Your task to perform on an android device: Search for Mexican restaurants on Maps Image 0: 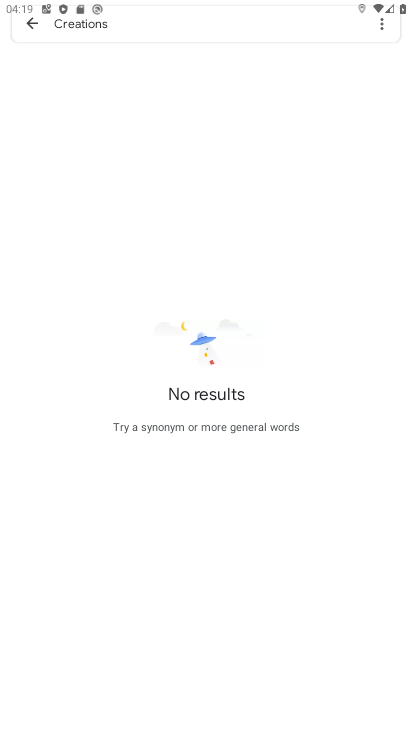
Step 0: press home button
Your task to perform on an android device: Search for Mexican restaurants on Maps Image 1: 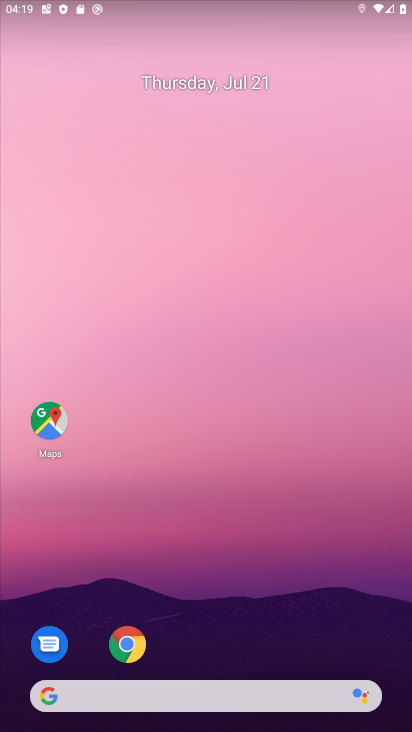
Step 1: click (49, 421)
Your task to perform on an android device: Search for Mexican restaurants on Maps Image 2: 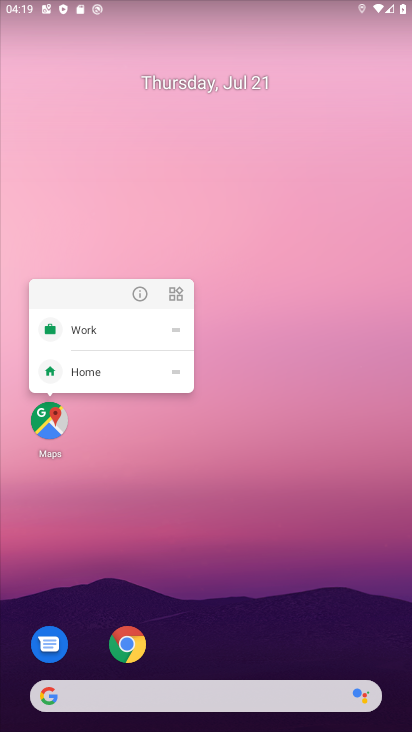
Step 2: click (49, 421)
Your task to perform on an android device: Search for Mexican restaurants on Maps Image 3: 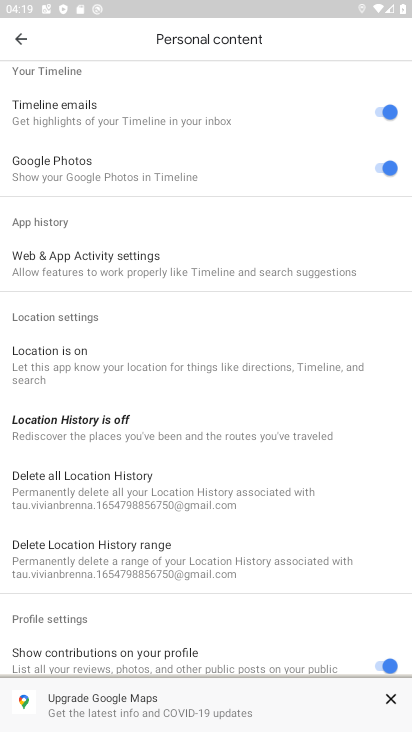
Step 3: click (20, 35)
Your task to perform on an android device: Search for Mexican restaurants on Maps Image 4: 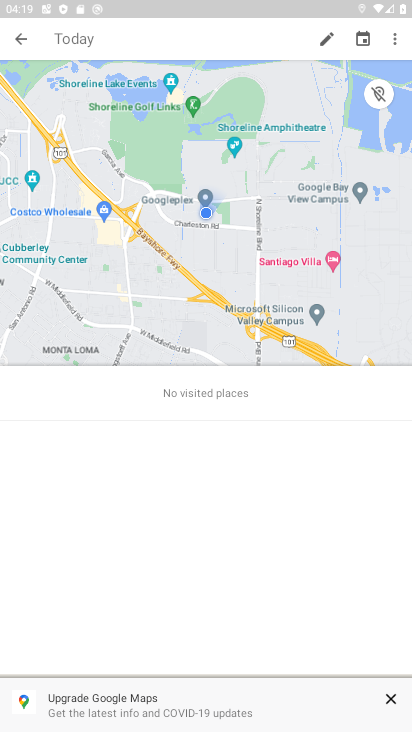
Step 4: click (21, 41)
Your task to perform on an android device: Search for Mexican restaurants on Maps Image 5: 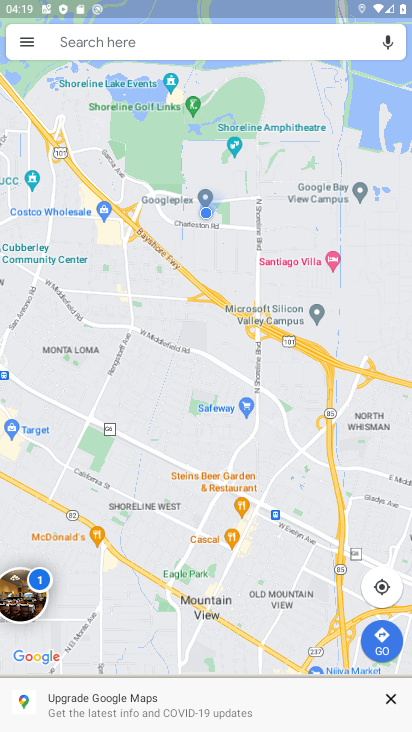
Step 5: click (87, 42)
Your task to perform on an android device: Search for Mexican restaurants on Maps Image 6: 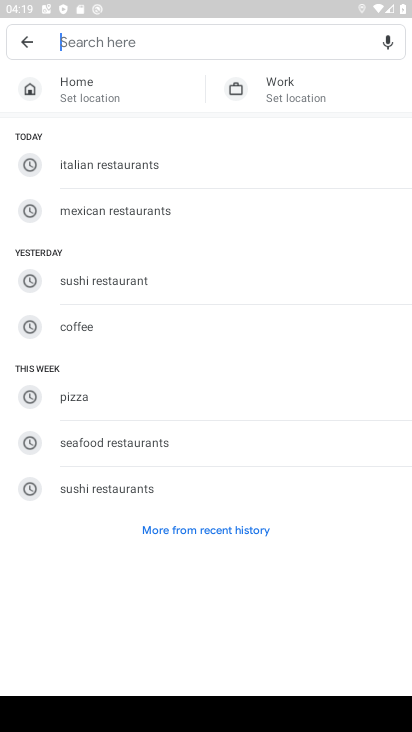
Step 6: type "Mexican restaurants"
Your task to perform on an android device: Search for Mexican restaurants on Maps Image 7: 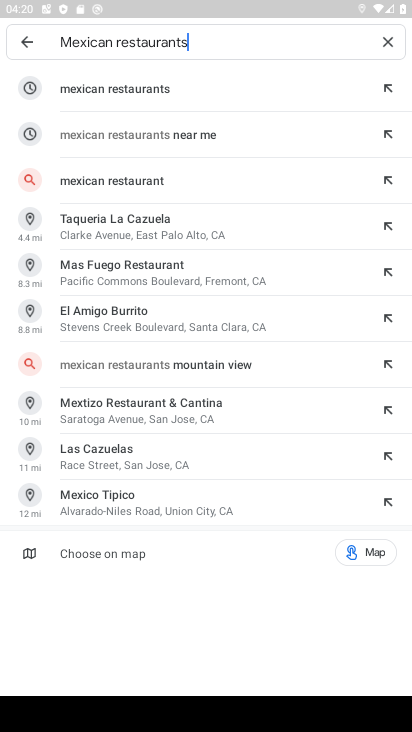
Step 7: click (133, 97)
Your task to perform on an android device: Search for Mexican restaurants on Maps Image 8: 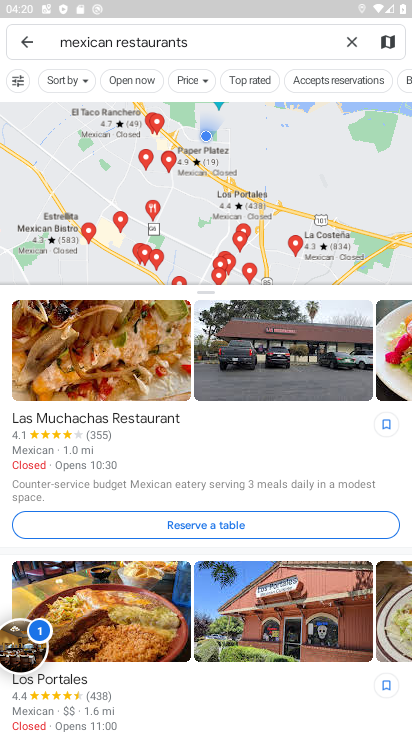
Step 8: task complete